Your task to perform on an android device: Set the phone to "Do not disturb". Image 0: 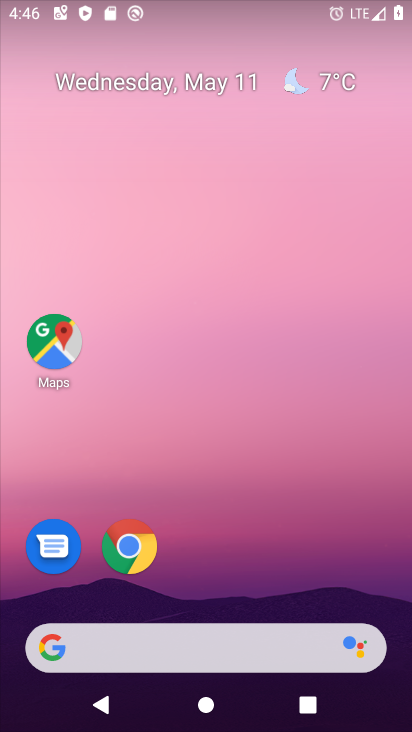
Step 0: drag from (255, 645) to (183, 0)
Your task to perform on an android device: Set the phone to "Do not disturb". Image 1: 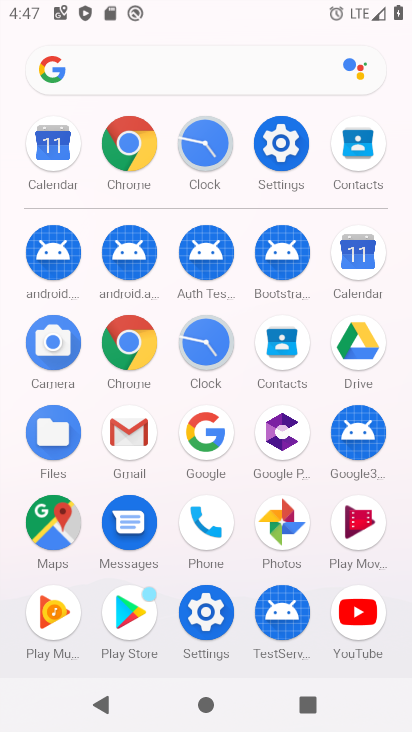
Step 1: click (298, 141)
Your task to perform on an android device: Set the phone to "Do not disturb". Image 2: 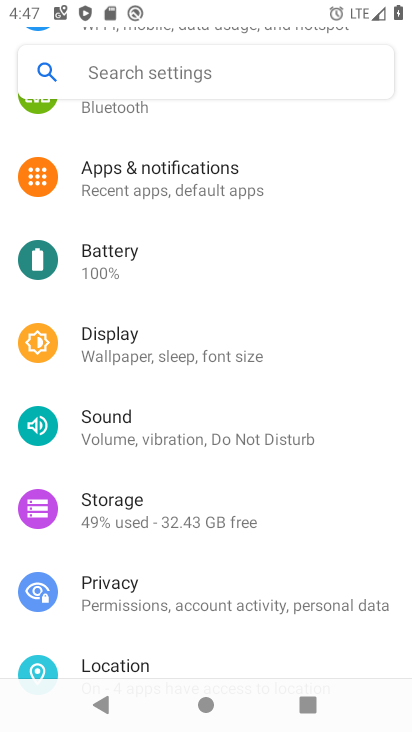
Step 2: drag from (237, 623) to (196, 222)
Your task to perform on an android device: Set the phone to "Do not disturb". Image 3: 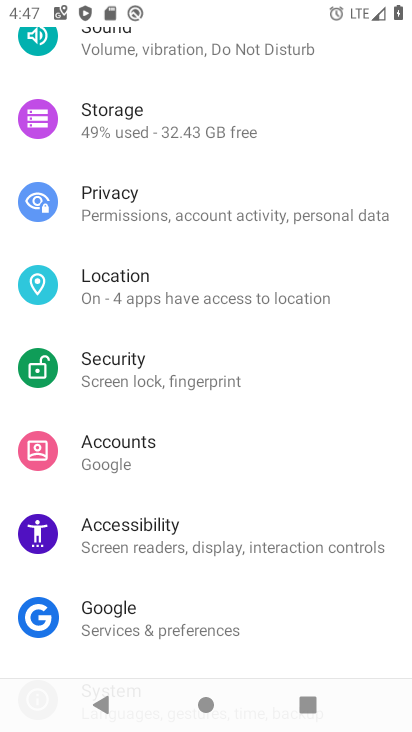
Step 3: drag from (200, 110) to (211, 278)
Your task to perform on an android device: Set the phone to "Do not disturb". Image 4: 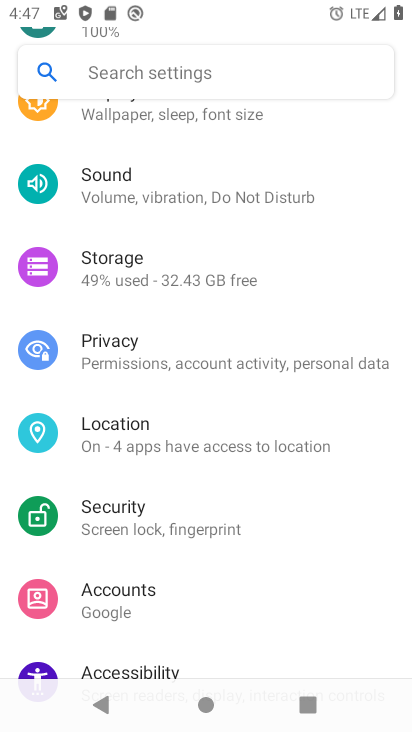
Step 4: click (193, 190)
Your task to perform on an android device: Set the phone to "Do not disturb". Image 5: 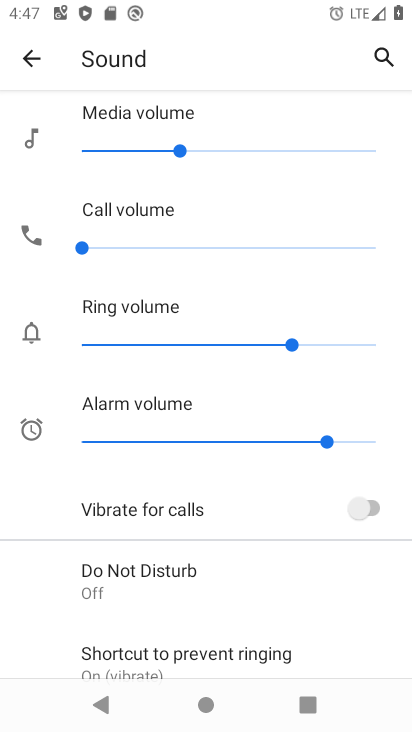
Step 5: drag from (236, 650) to (199, 208)
Your task to perform on an android device: Set the phone to "Do not disturb". Image 6: 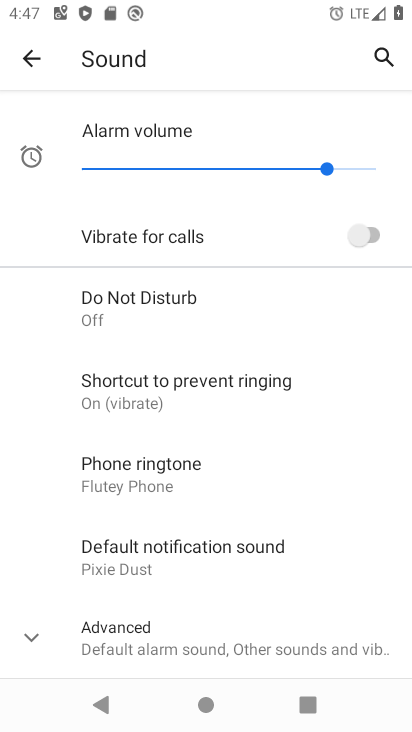
Step 6: click (139, 311)
Your task to perform on an android device: Set the phone to "Do not disturb". Image 7: 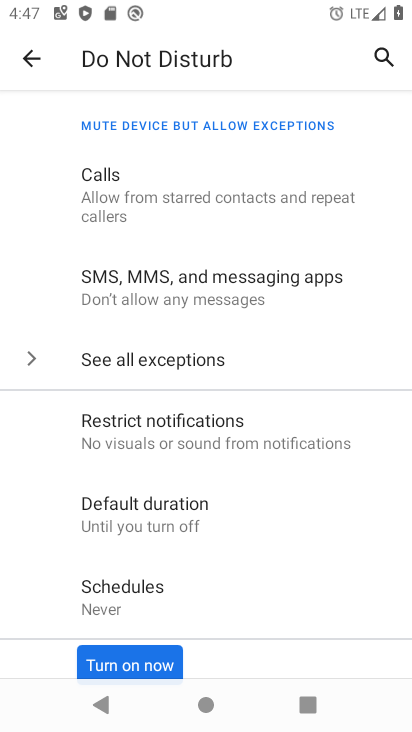
Step 7: click (170, 665)
Your task to perform on an android device: Set the phone to "Do not disturb". Image 8: 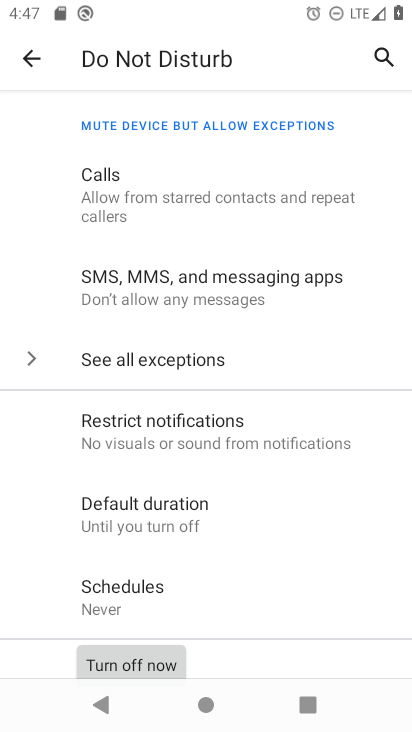
Step 8: task complete